Your task to perform on an android device: set the stopwatch Image 0: 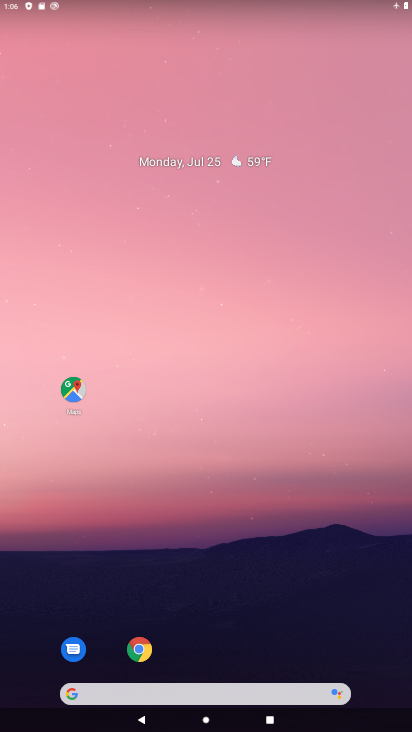
Step 0: drag from (185, 693) to (228, 67)
Your task to perform on an android device: set the stopwatch Image 1: 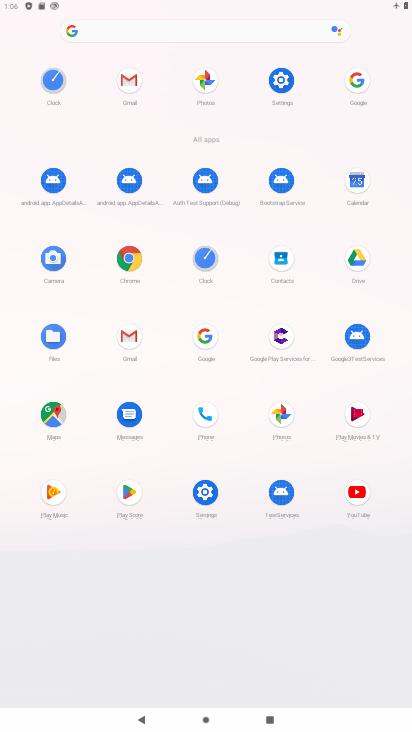
Step 1: click (208, 254)
Your task to perform on an android device: set the stopwatch Image 2: 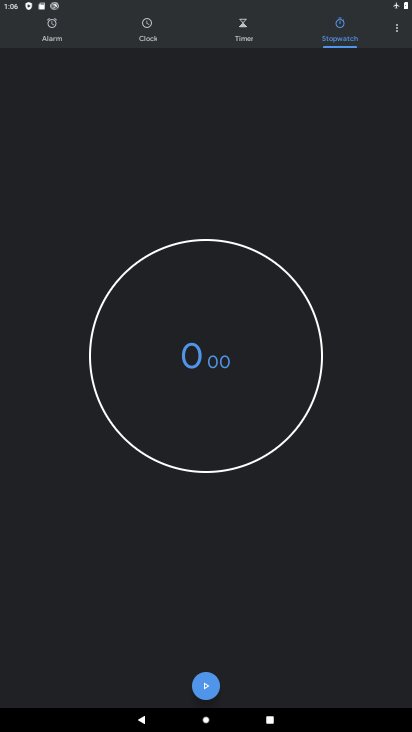
Step 2: click (214, 350)
Your task to perform on an android device: set the stopwatch Image 3: 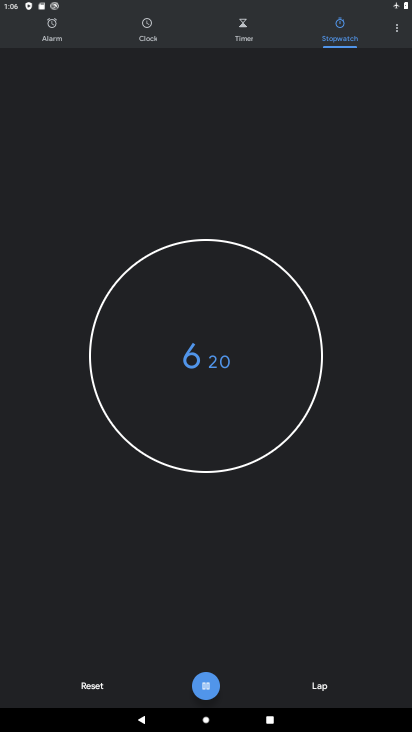
Step 3: click (269, 400)
Your task to perform on an android device: set the stopwatch Image 4: 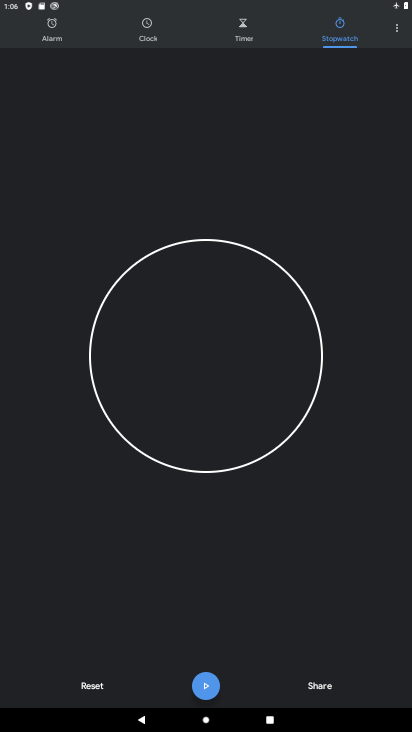
Step 4: task complete